Your task to perform on an android device: Show the shopping cart on walmart. Image 0: 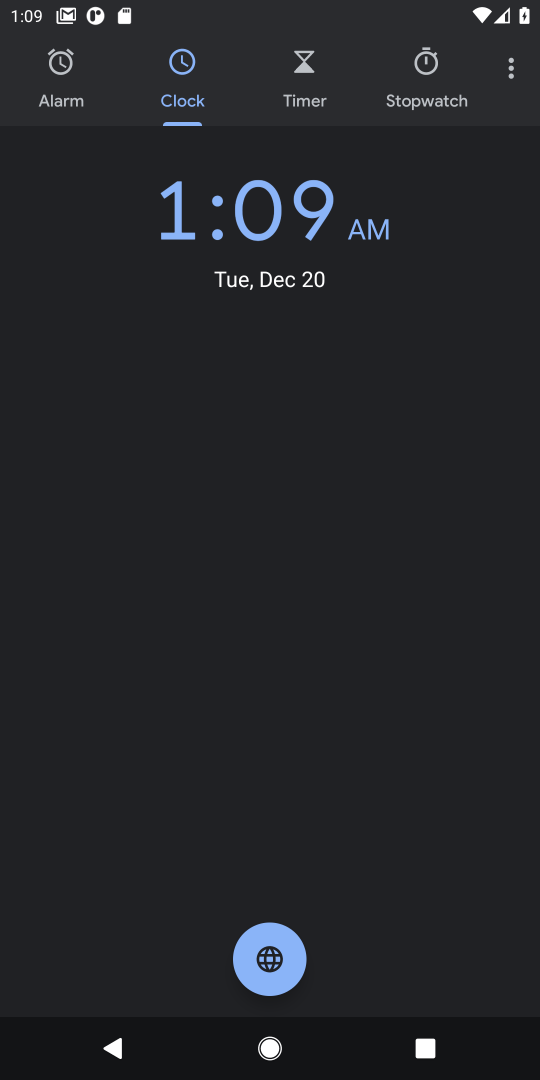
Step 0: press home button
Your task to perform on an android device: Show the shopping cart on walmart. Image 1: 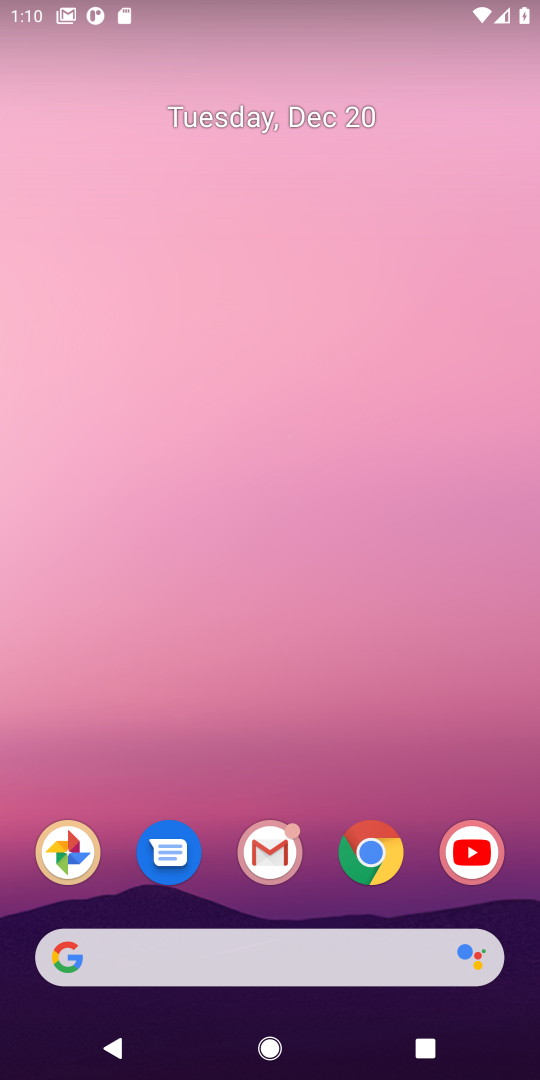
Step 1: click (383, 865)
Your task to perform on an android device: Show the shopping cart on walmart. Image 2: 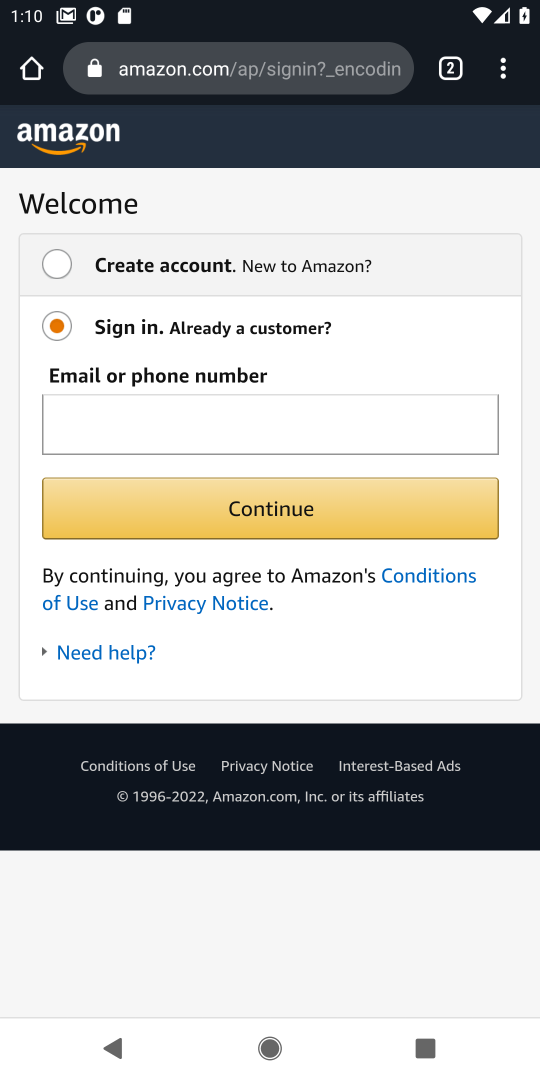
Step 2: click (201, 79)
Your task to perform on an android device: Show the shopping cart on walmart. Image 3: 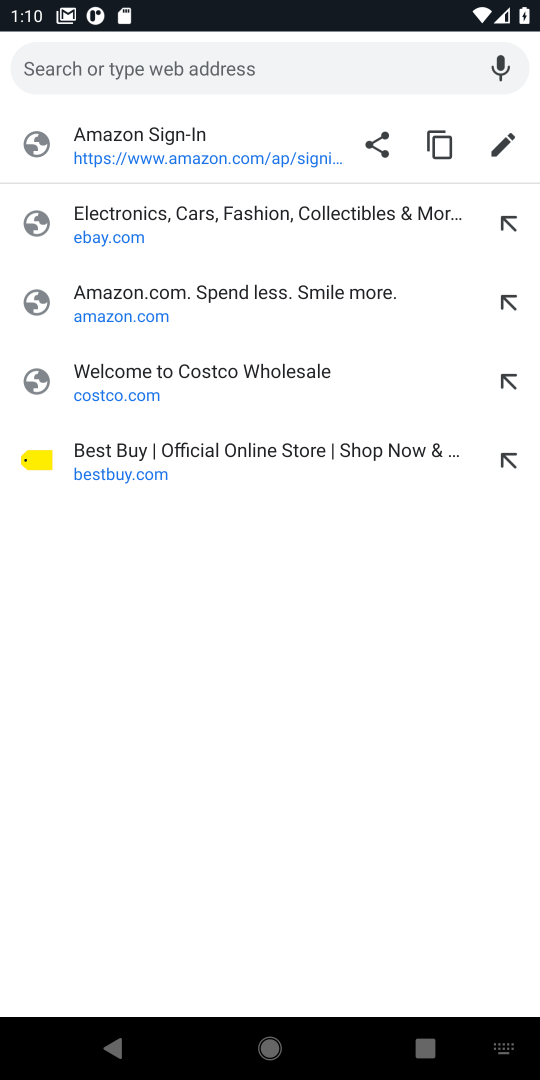
Step 3: type "walmart.com"
Your task to perform on an android device: Show the shopping cart on walmart. Image 4: 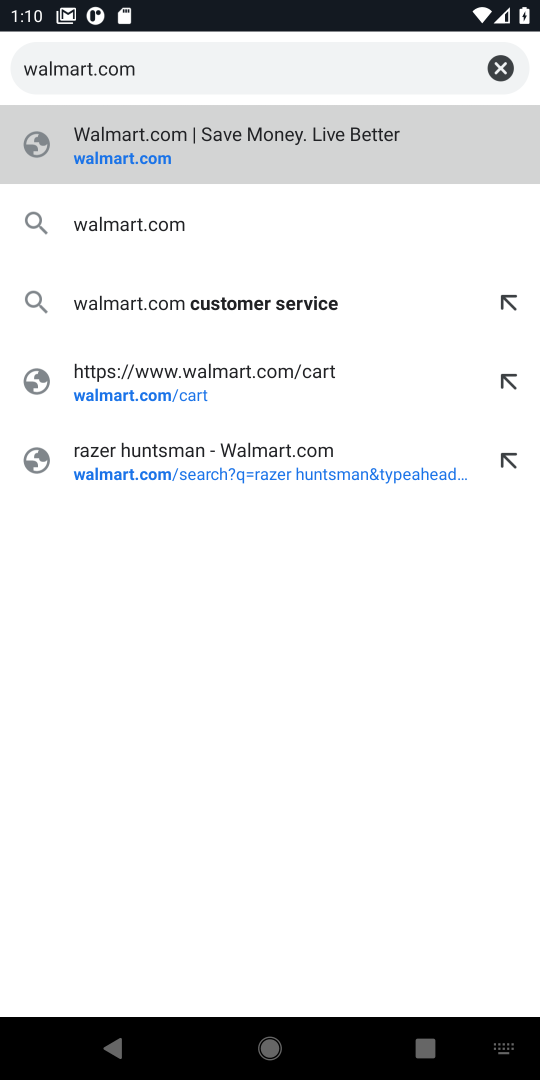
Step 4: click (114, 166)
Your task to perform on an android device: Show the shopping cart on walmart. Image 5: 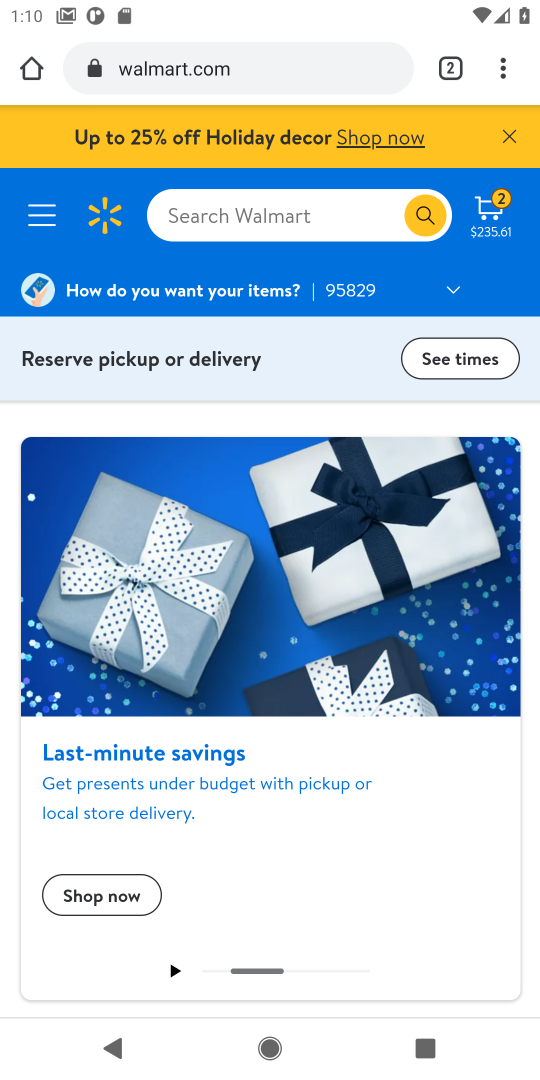
Step 5: click (491, 209)
Your task to perform on an android device: Show the shopping cart on walmart. Image 6: 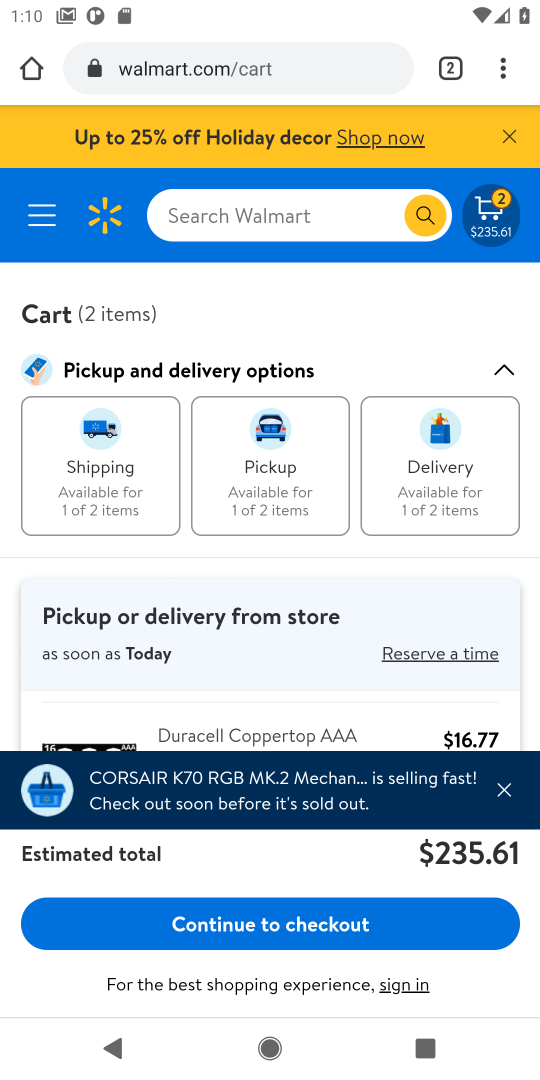
Step 6: task complete